Your task to perform on an android device: Open Google Chrome and open the bookmarks view Image 0: 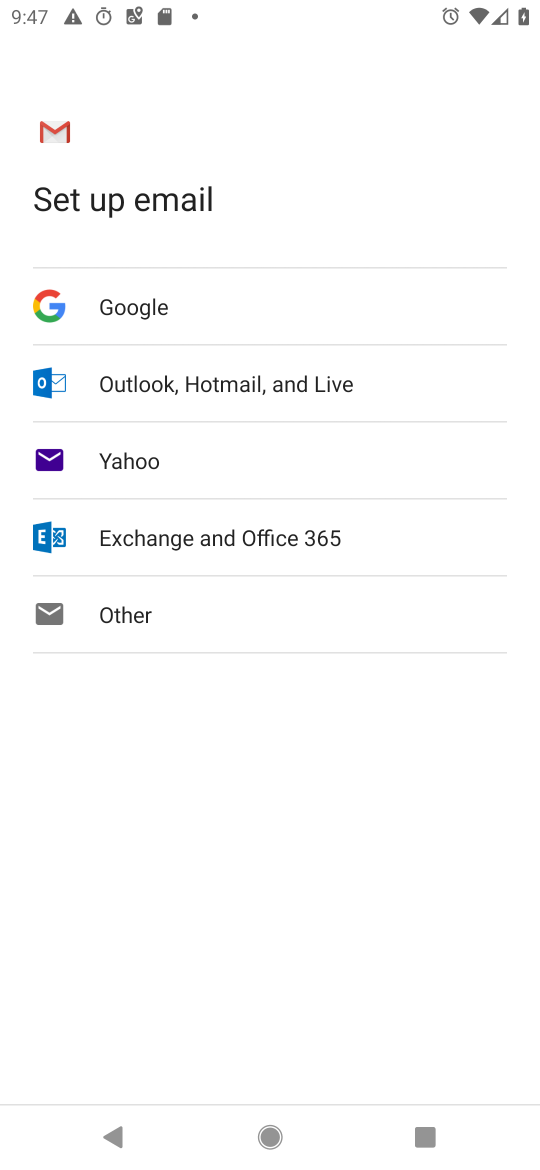
Step 0: press home button
Your task to perform on an android device: Open Google Chrome and open the bookmarks view Image 1: 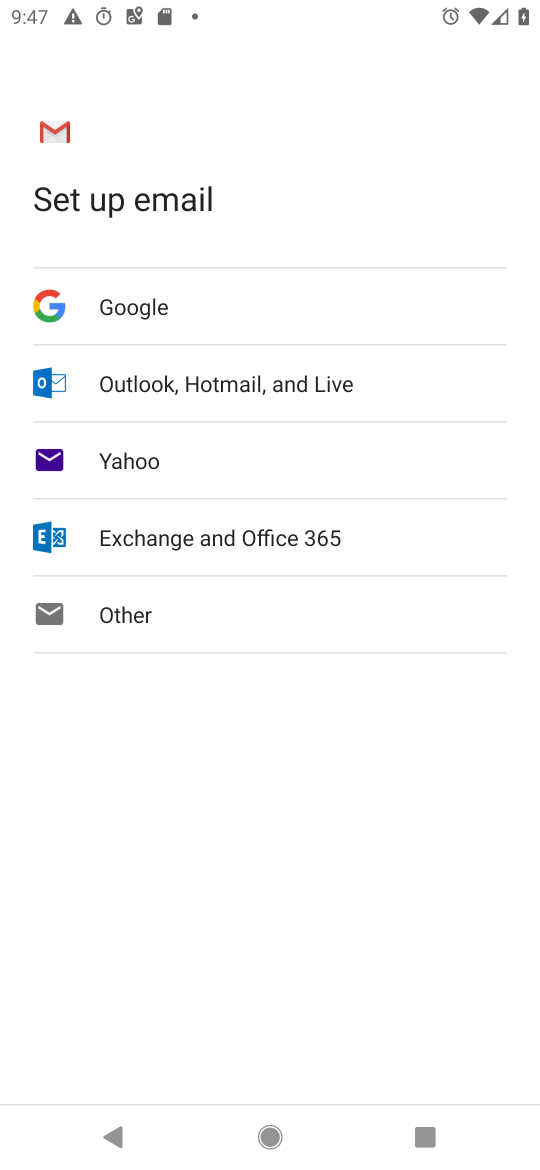
Step 1: press home button
Your task to perform on an android device: Open Google Chrome and open the bookmarks view Image 2: 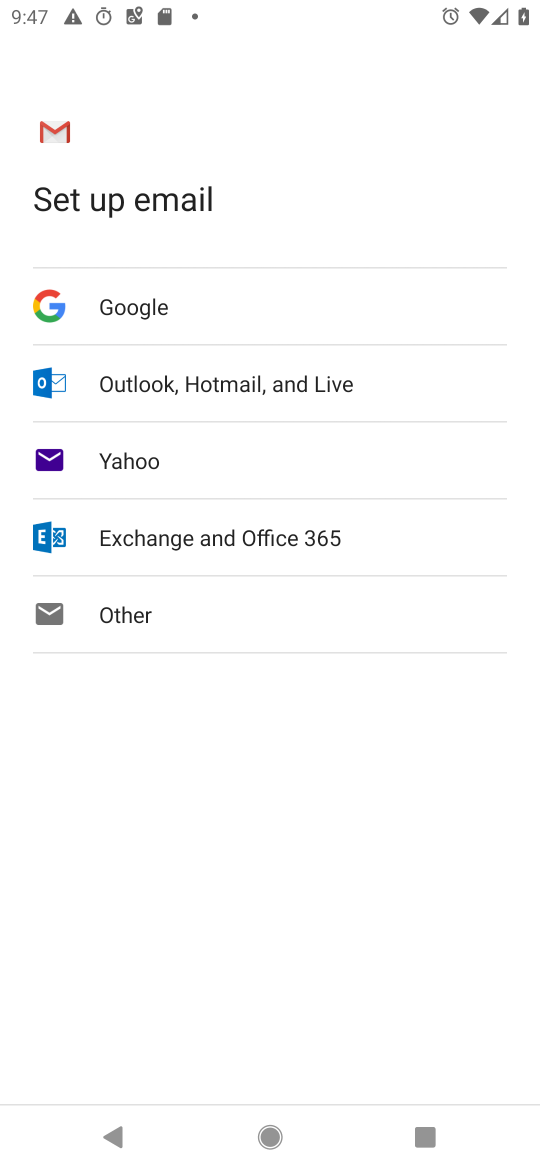
Step 2: drag from (230, 675) to (241, 100)
Your task to perform on an android device: Open Google Chrome and open the bookmarks view Image 3: 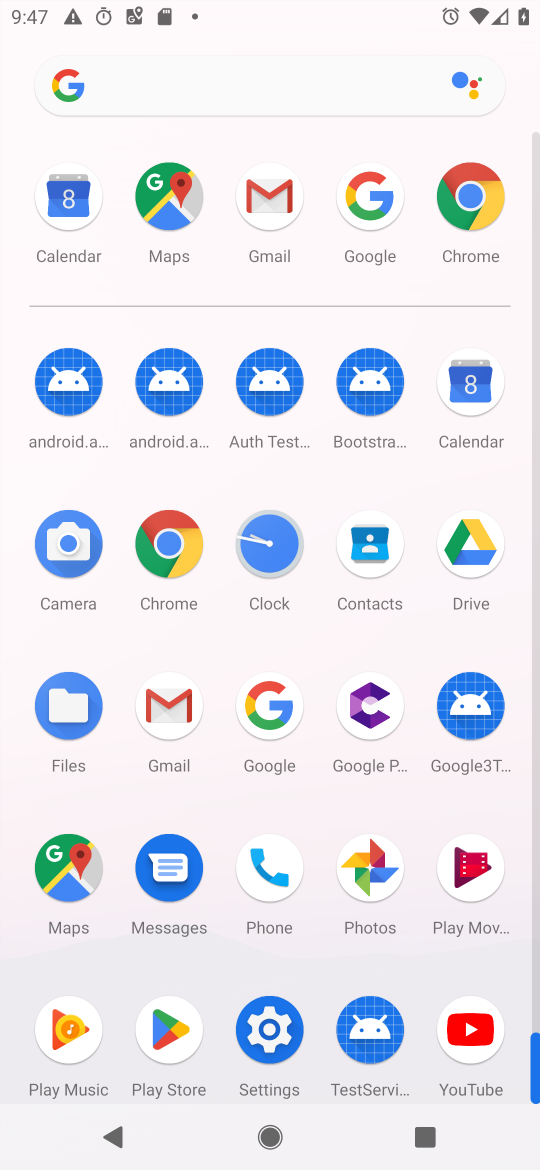
Step 3: drag from (283, 967) to (358, 245)
Your task to perform on an android device: Open Google Chrome and open the bookmarks view Image 4: 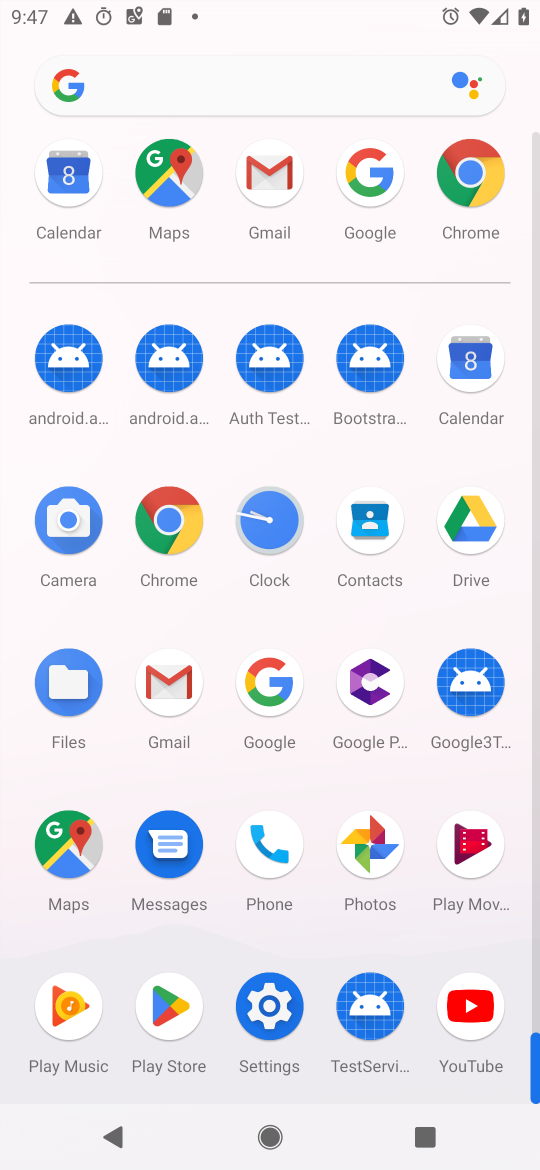
Step 4: click (162, 516)
Your task to perform on an android device: Open Google Chrome and open the bookmarks view Image 5: 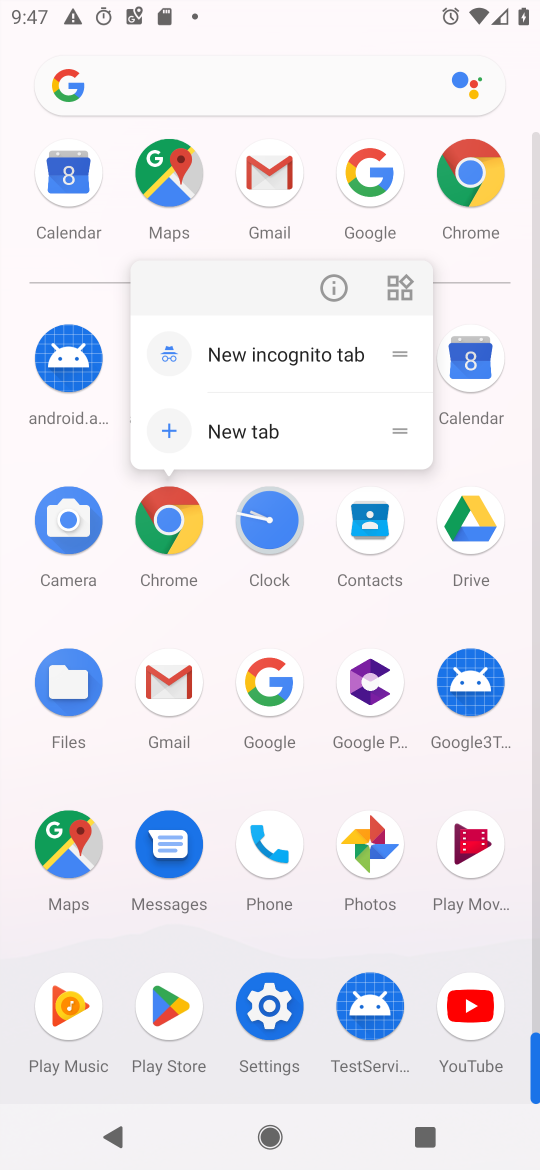
Step 5: click (345, 279)
Your task to perform on an android device: Open Google Chrome and open the bookmarks view Image 6: 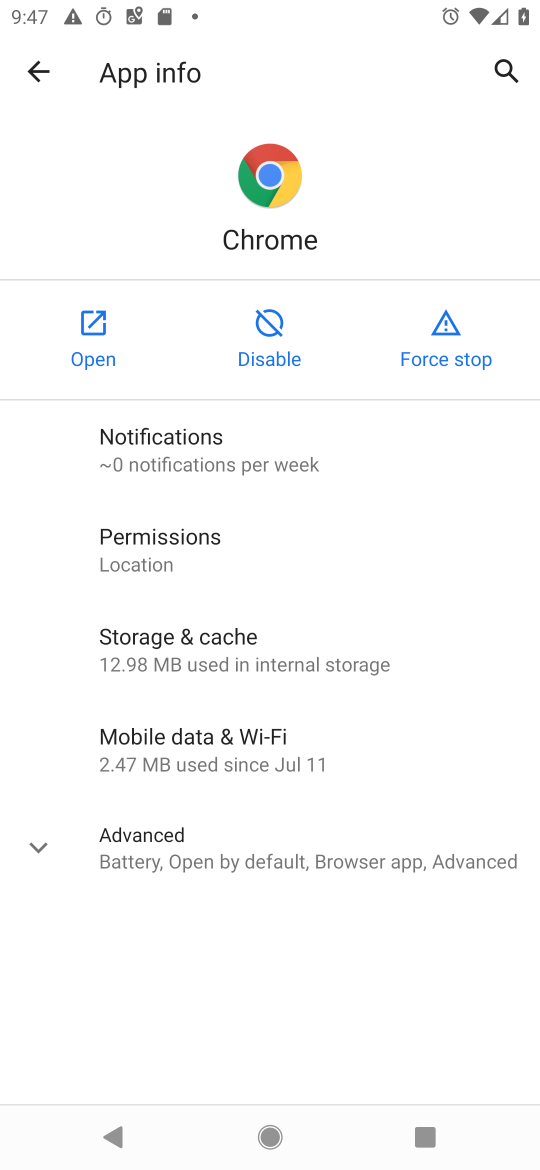
Step 6: click (85, 339)
Your task to perform on an android device: Open Google Chrome and open the bookmarks view Image 7: 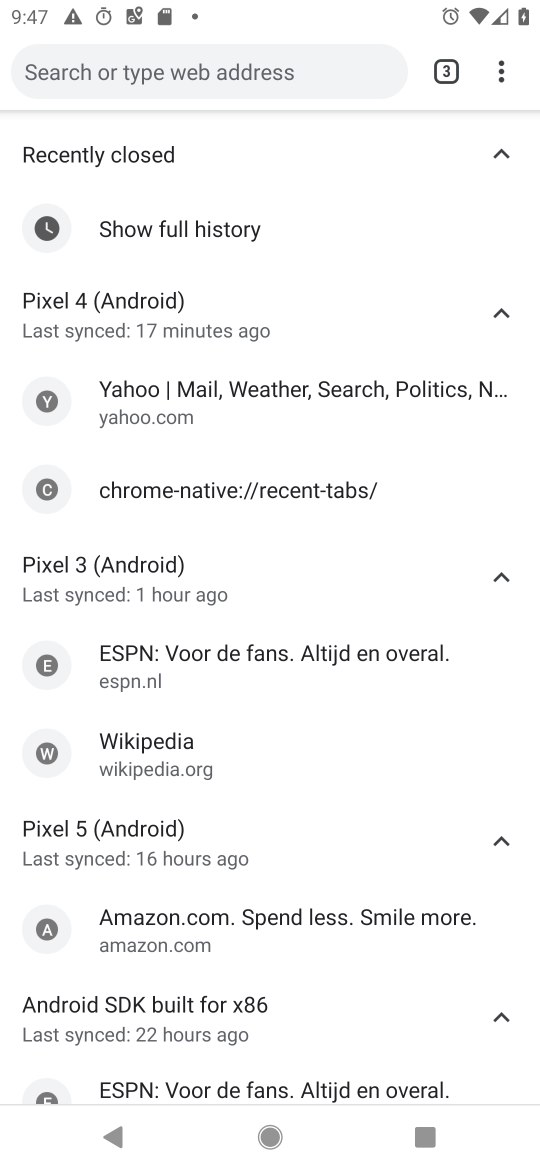
Step 7: task complete